Your task to perform on an android device: create a new album in the google photos Image 0: 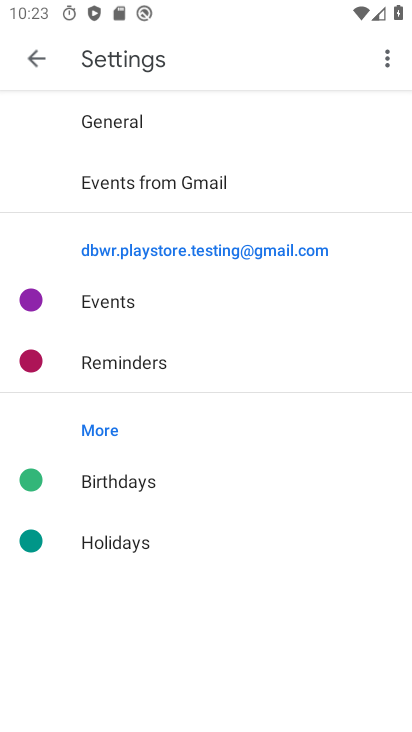
Step 0: press home button
Your task to perform on an android device: create a new album in the google photos Image 1: 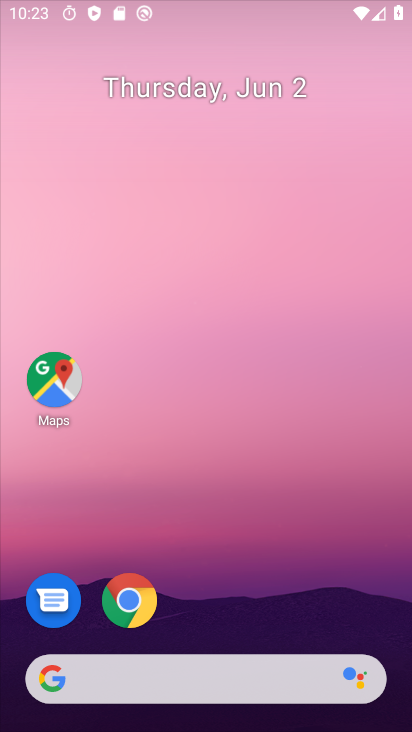
Step 1: drag from (203, 605) to (244, 57)
Your task to perform on an android device: create a new album in the google photos Image 2: 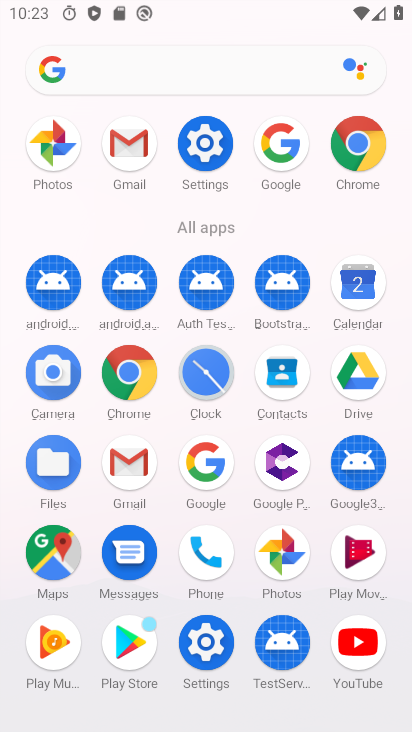
Step 2: click (277, 556)
Your task to perform on an android device: create a new album in the google photos Image 3: 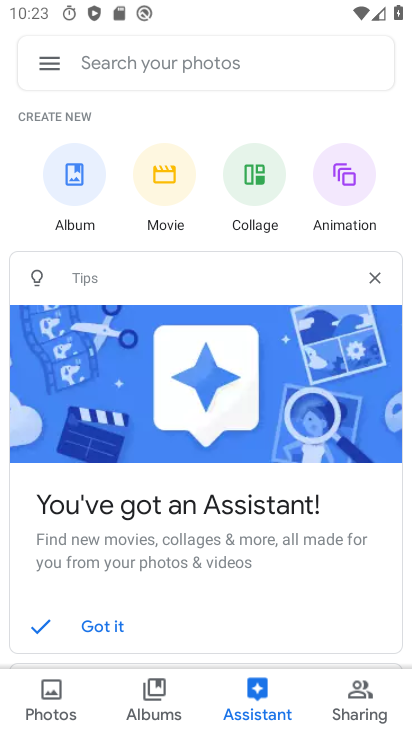
Step 3: click (165, 705)
Your task to perform on an android device: create a new album in the google photos Image 4: 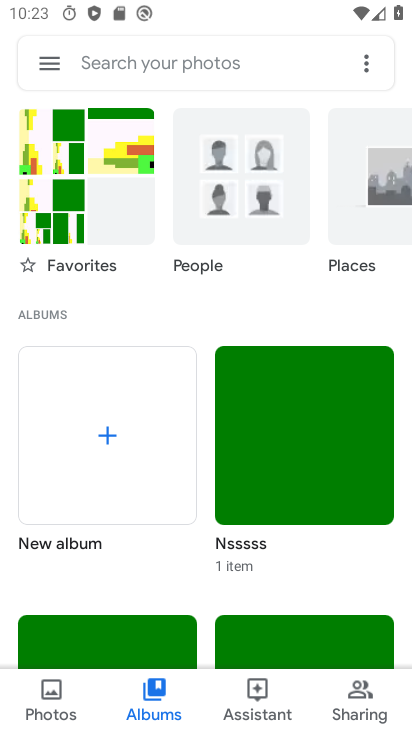
Step 4: click (124, 459)
Your task to perform on an android device: create a new album in the google photos Image 5: 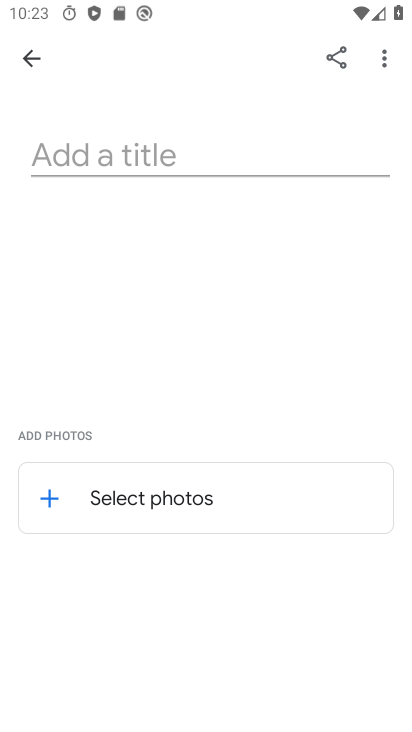
Step 5: click (188, 161)
Your task to perform on an android device: create a new album in the google photos Image 6: 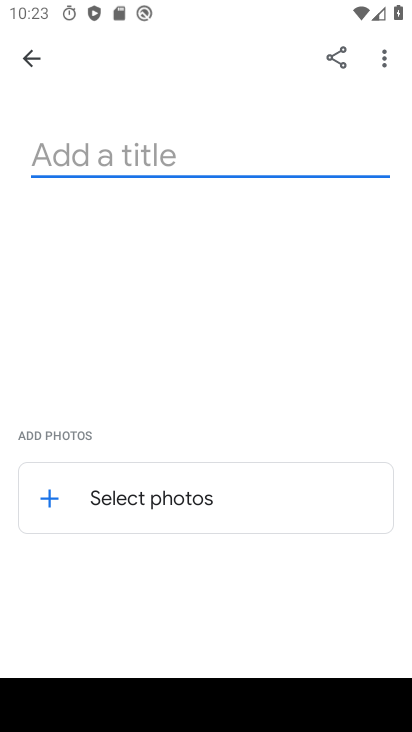
Step 6: type "kjgu"
Your task to perform on an android device: create a new album in the google photos Image 7: 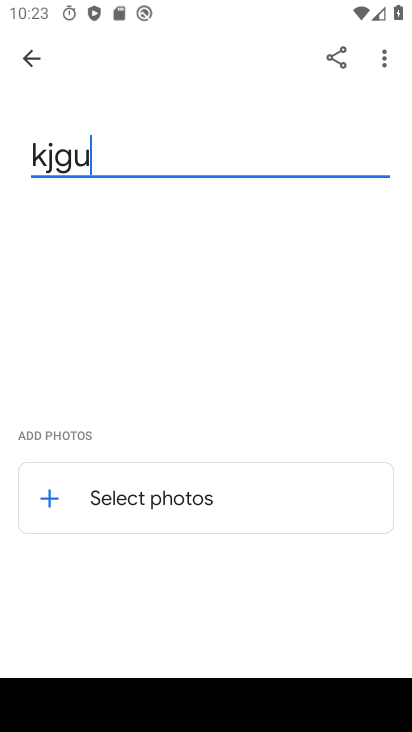
Step 7: click (40, 506)
Your task to perform on an android device: create a new album in the google photos Image 8: 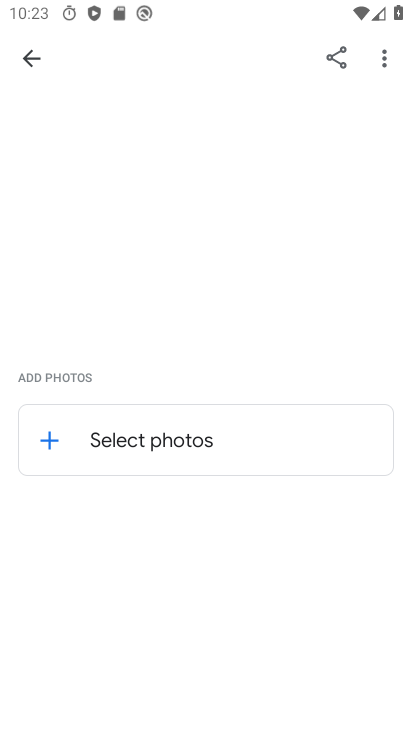
Step 8: click (44, 448)
Your task to perform on an android device: create a new album in the google photos Image 9: 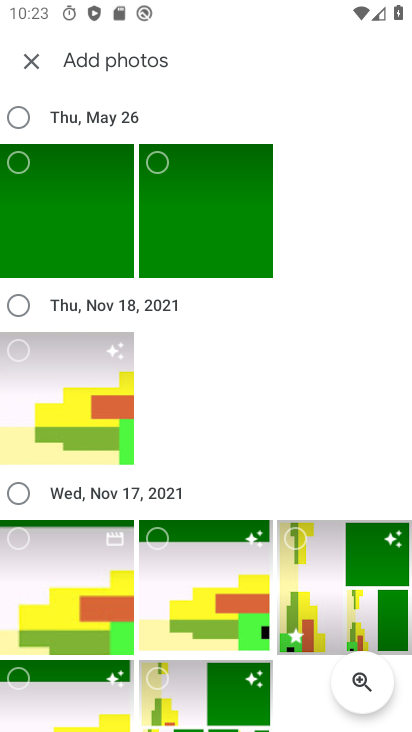
Step 9: click (21, 354)
Your task to perform on an android device: create a new album in the google photos Image 10: 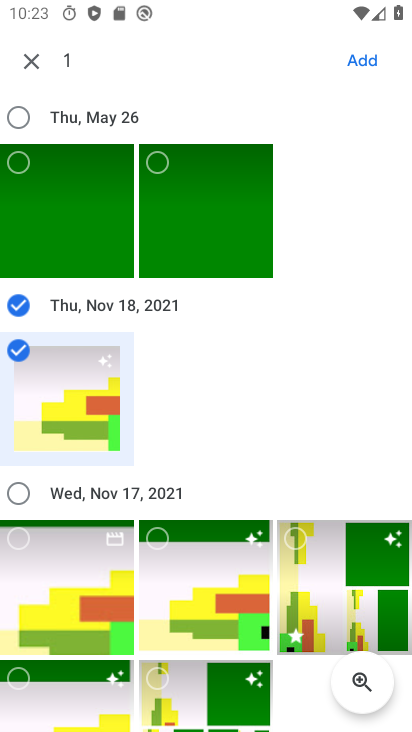
Step 10: click (355, 56)
Your task to perform on an android device: create a new album in the google photos Image 11: 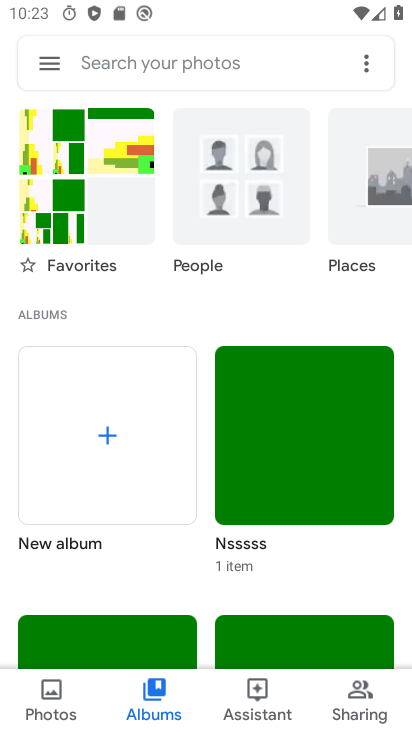
Step 11: task complete